Your task to perform on an android device: toggle javascript in the chrome app Image 0: 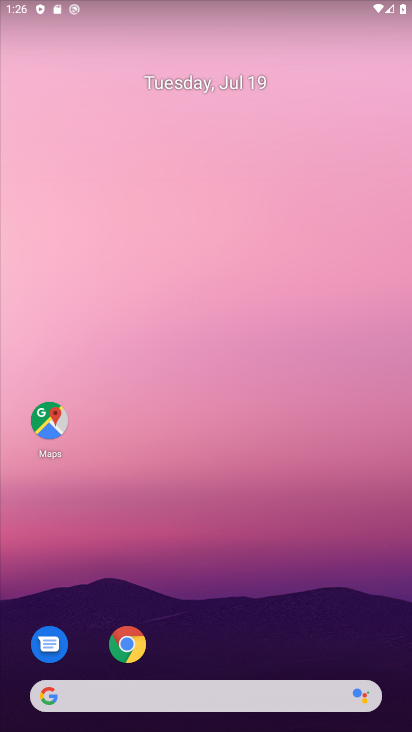
Step 0: click (113, 646)
Your task to perform on an android device: toggle javascript in the chrome app Image 1: 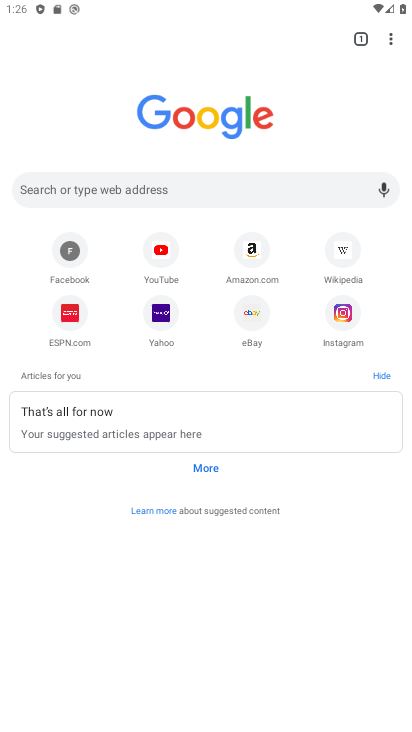
Step 1: click (389, 40)
Your task to perform on an android device: toggle javascript in the chrome app Image 2: 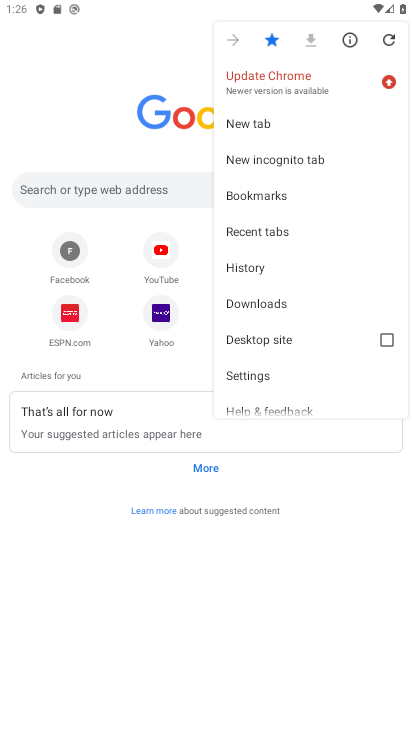
Step 2: click (247, 373)
Your task to perform on an android device: toggle javascript in the chrome app Image 3: 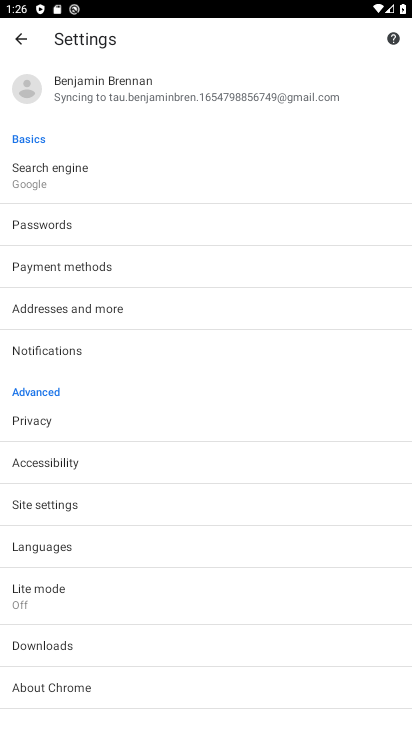
Step 3: click (50, 504)
Your task to perform on an android device: toggle javascript in the chrome app Image 4: 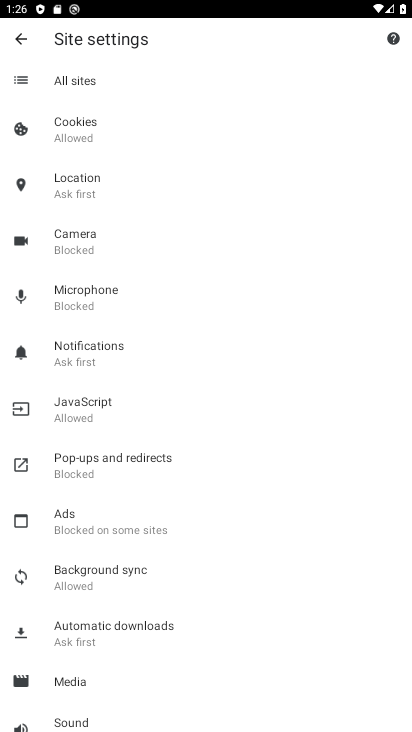
Step 4: click (101, 413)
Your task to perform on an android device: toggle javascript in the chrome app Image 5: 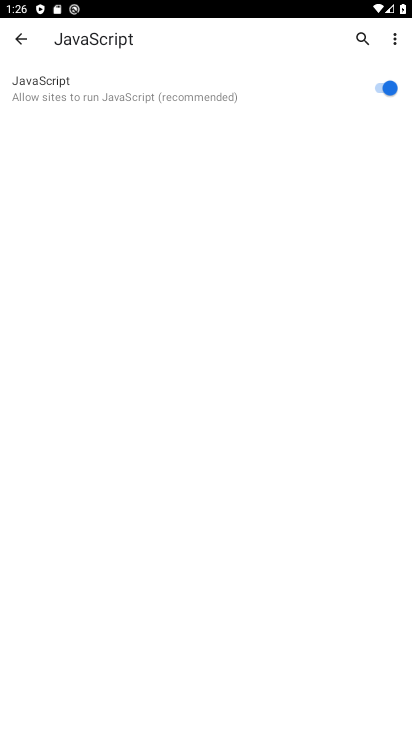
Step 5: click (380, 90)
Your task to perform on an android device: toggle javascript in the chrome app Image 6: 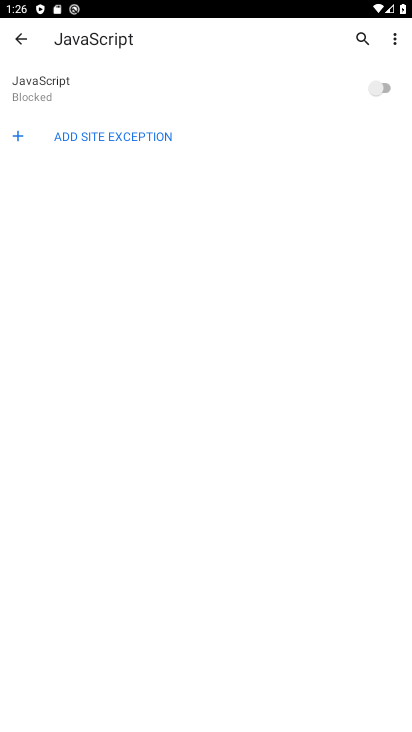
Step 6: task complete